Your task to perform on an android device: change notifications settings Image 0: 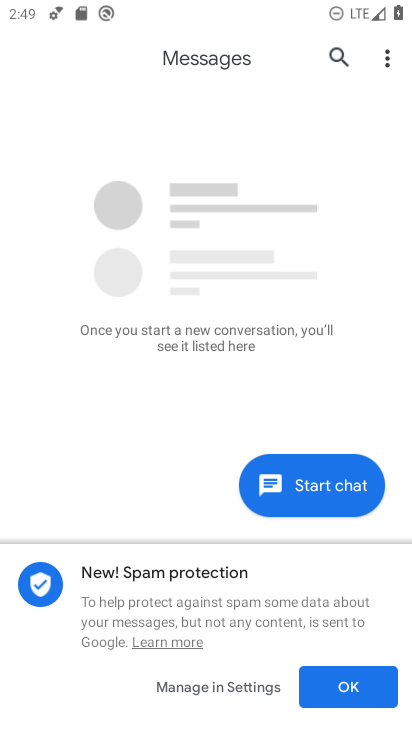
Step 0: press home button
Your task to perform on an android device: change notifications settings Image 1: 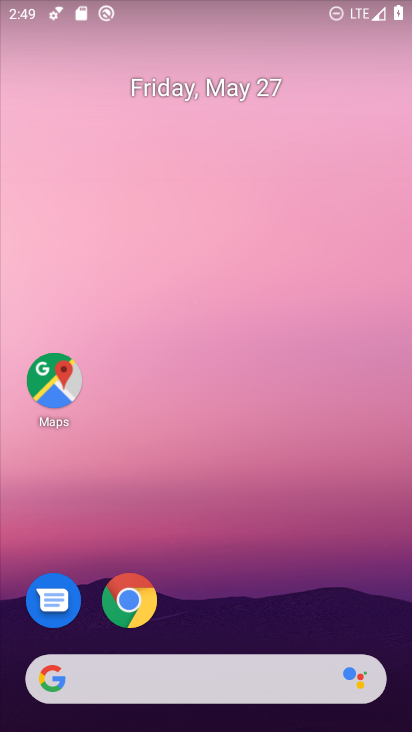
Step 1: drag from (247, 718) to (237, 81)
Your task to perform on an android device: change notifications settings Image 2: 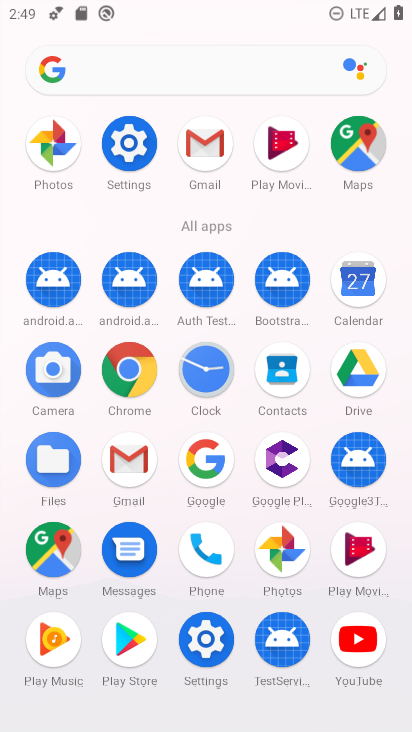
Step 2: click (136, 147)
Your task to perform on an android device: change notifications settings Image 3: 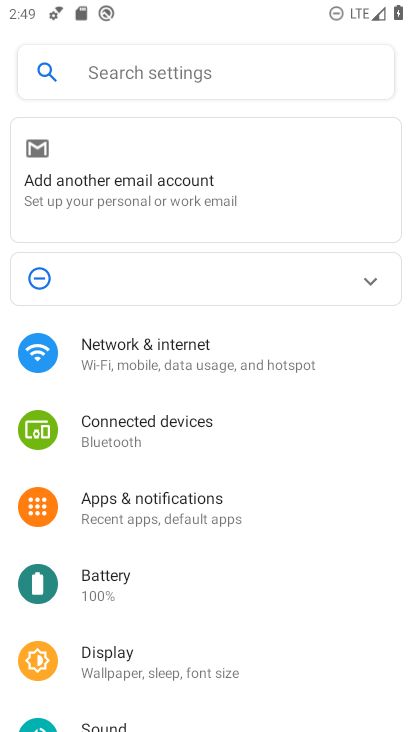
Step 3: click (157, 502)
Your task to perform on an android device: change notifications settings Image 4: 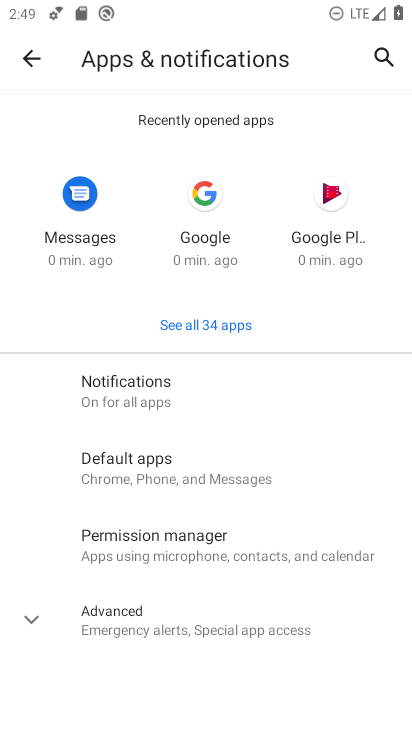
Step 4: click (137, 390)
Your task to perform on an android device: change notifications settings Image 5: 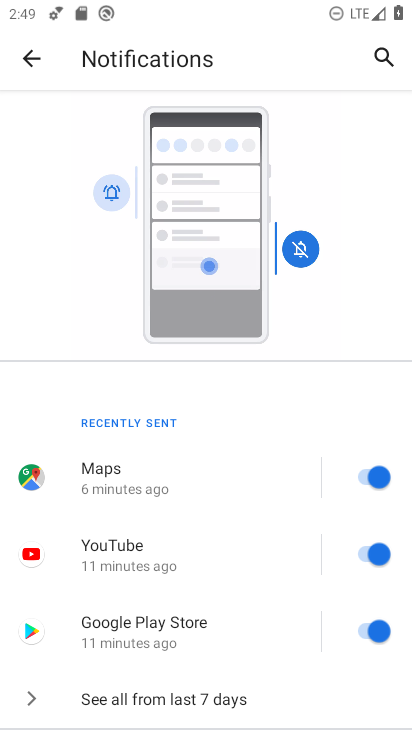
Step 5: drag from (216, 708) to (216, 362)
Your task to perform on an android device: change notifications settings Image 6: 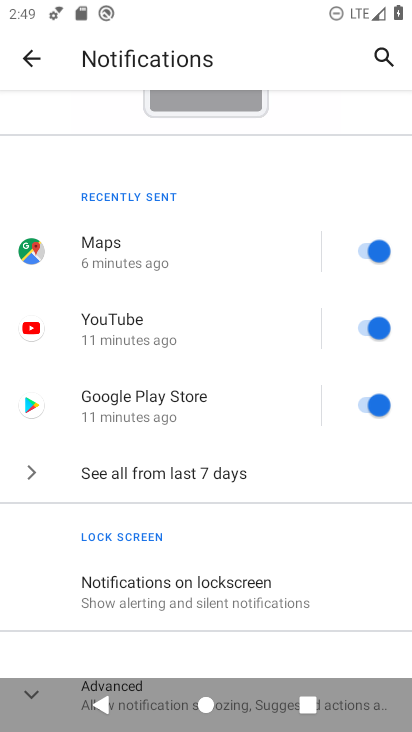
Step 6: drag from (199, 653) to (197, 307)
Your task to perform on an android device: change notifications settings Image 7: 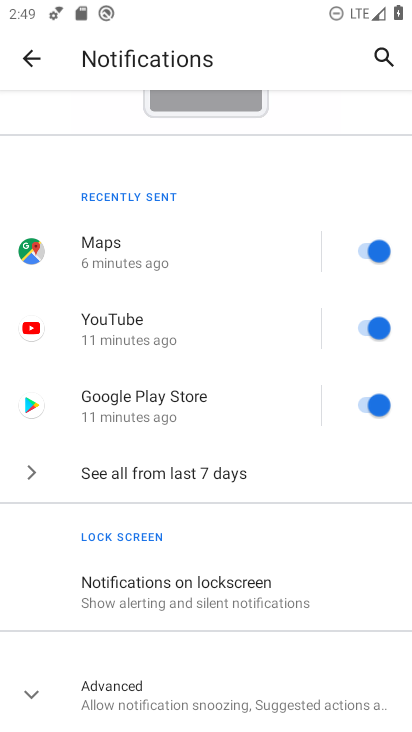
Step 7: click (149, 689)
Your task to perform on an android device: change notifications settings Image 8: 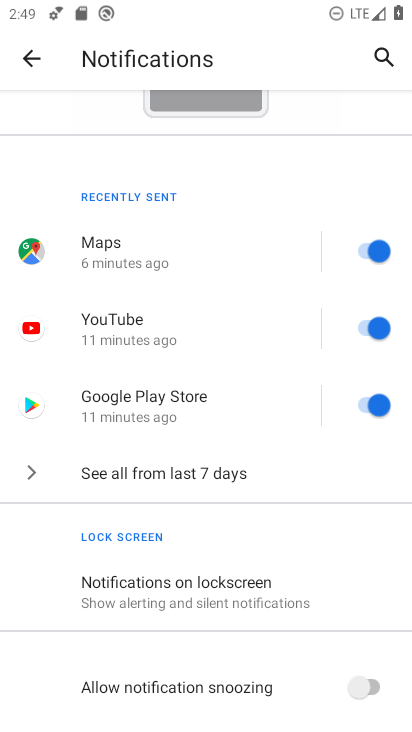
Step 8: click (379, 683)
Your task to perform on an android device: change notifications settings Image 9: 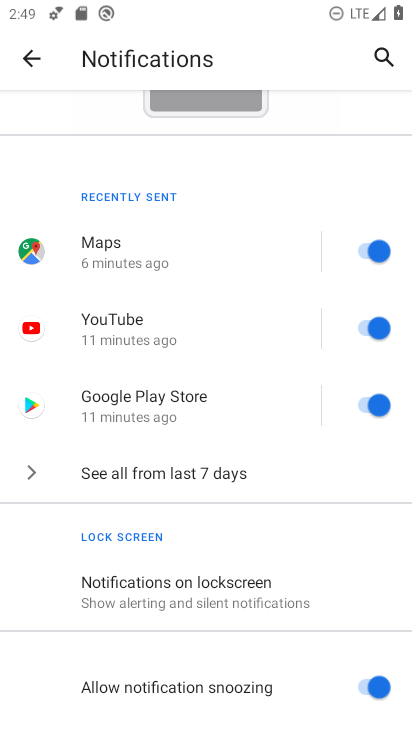
Step 9: task complete